Your task to perform on an android device: set the stopwatch Image 0: 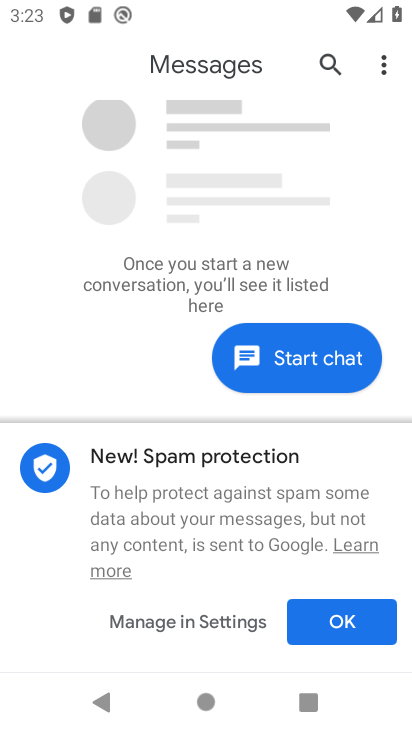
Step 0: press home button
Your task to perform on an android device: set the stopwatch Image 1: 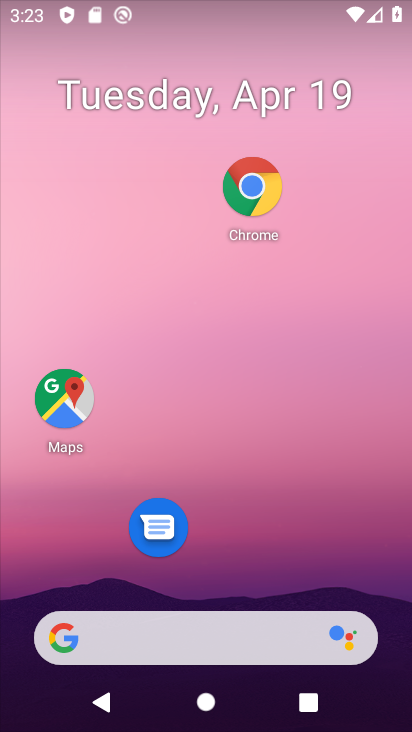
Step 1: drag from (241, 565) to (264, 156)
Your task to perform on an android device: set the stopwatch Image 2: 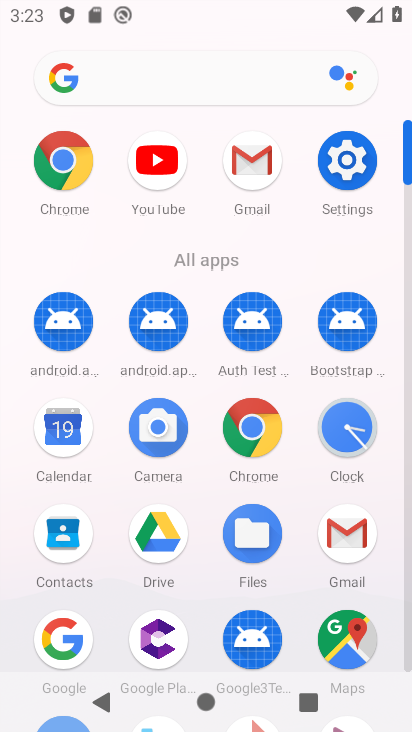
Step 2: click (347, 411)
Your task to perform on an android device: set the stopwatch Image 3: 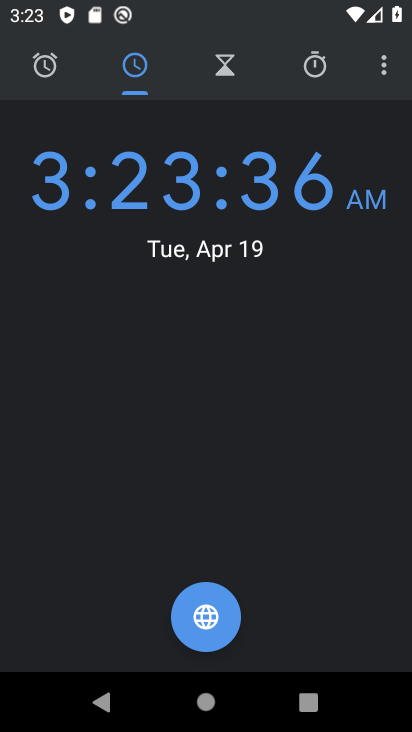
Step 3: click (323, 74)
Your task to perform on an android device: set the stopwatch Image 4: 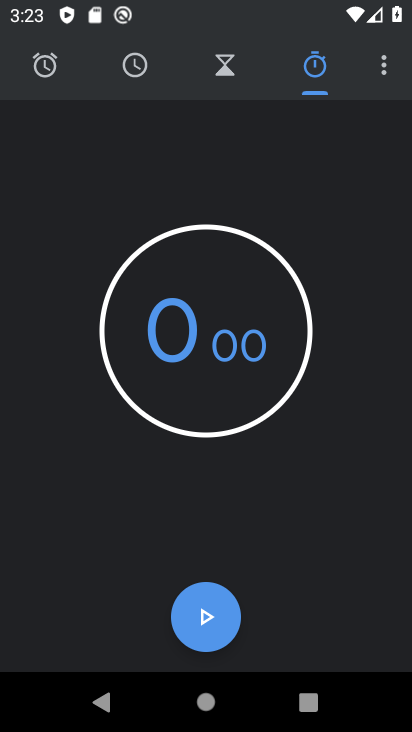
Step 4: click (209, 617)
Your task to perform on an android device: set the stopwatch Image 5: 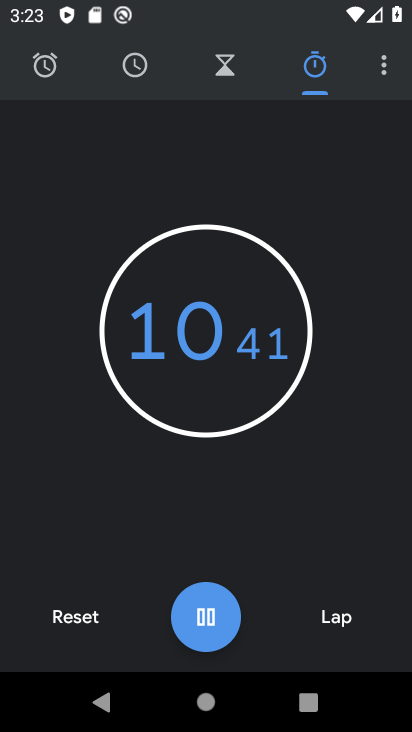
Step 5: click (209, 617)
Your task to perform on an android device: set the stopwatch Image 6: 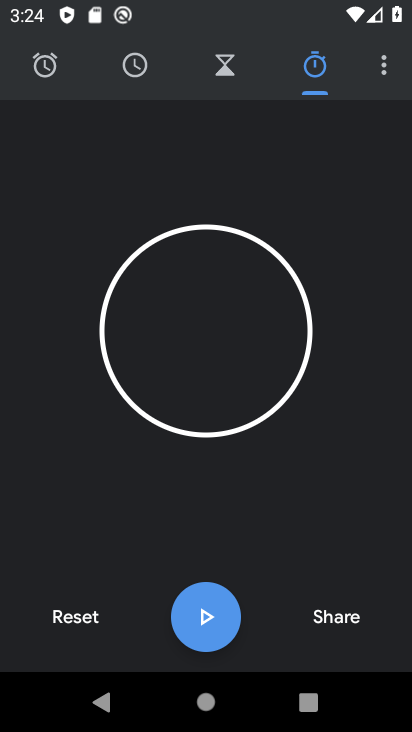
Step 6: task complete